Your task to perform on an android device: Open Google Chrome and open the bookmarks view Image 0: 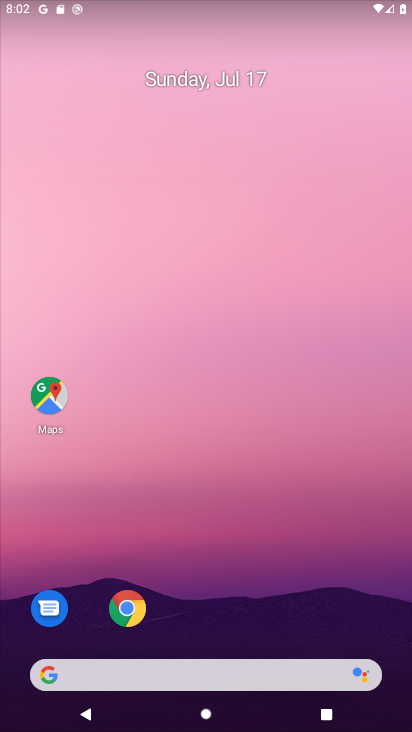
Step 0: click (138, 606)
Your task to perform on an android device: Open Google Chrome and open the bookmarks view Image 1: 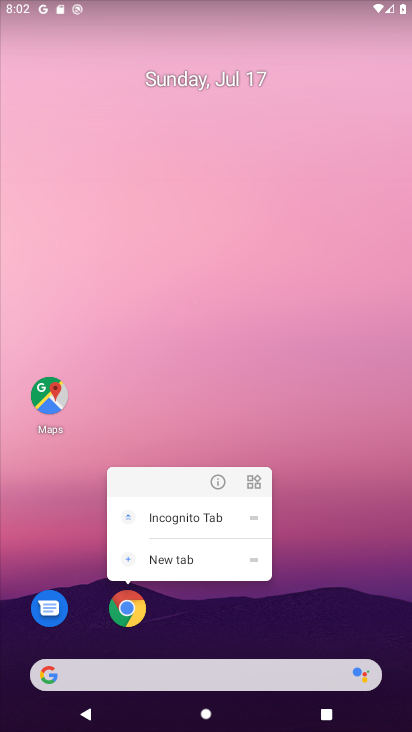
Step 1: click (138, 606)
Your task to perform on an android device: Open Google Chrome and open the bookmarks view Image 2: 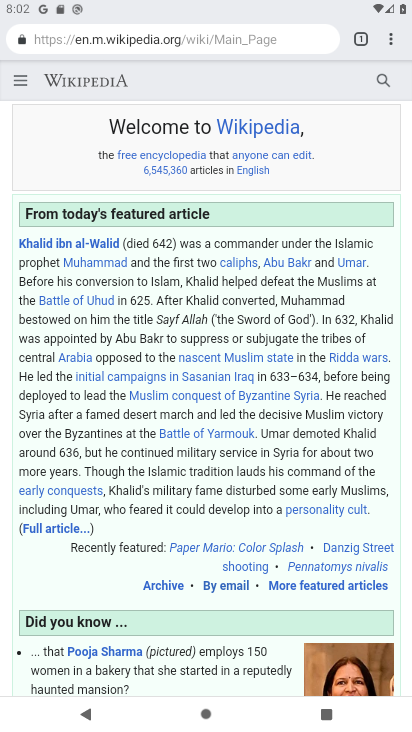
Step 2: click (392, 38)
Your task to perform on an android device: Open Google Chrome and open the bookmarks view Image 3: 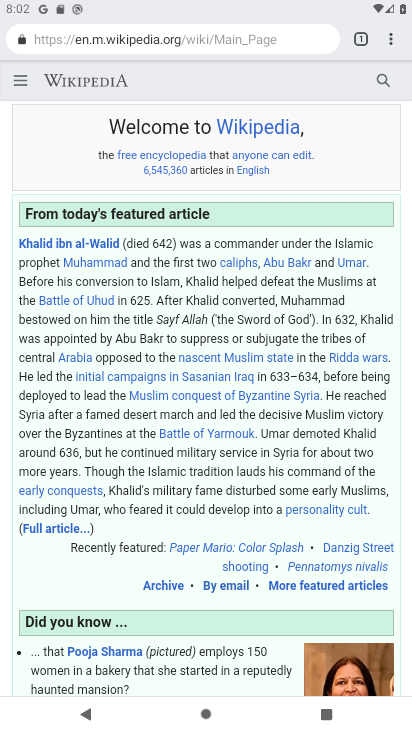
Step 3: click (388, 36)
Your task to perform on an android device: Open Google Chrome and open the bookmarks view Image 4: 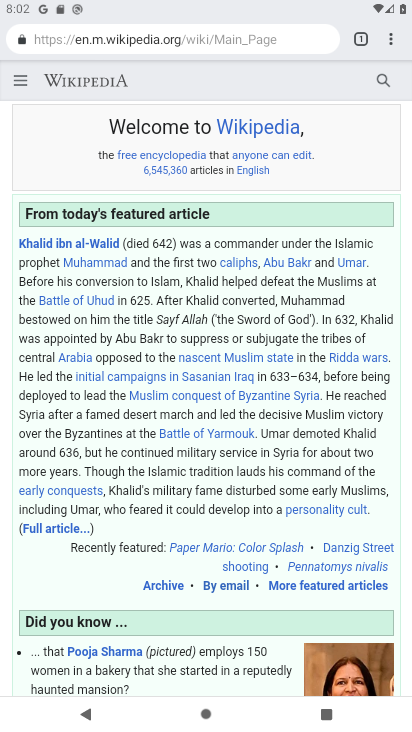
Step 4: click (387, 35)
Your task to perform on an android device: Open Google Chrome and open the bookmarks view Image 5: 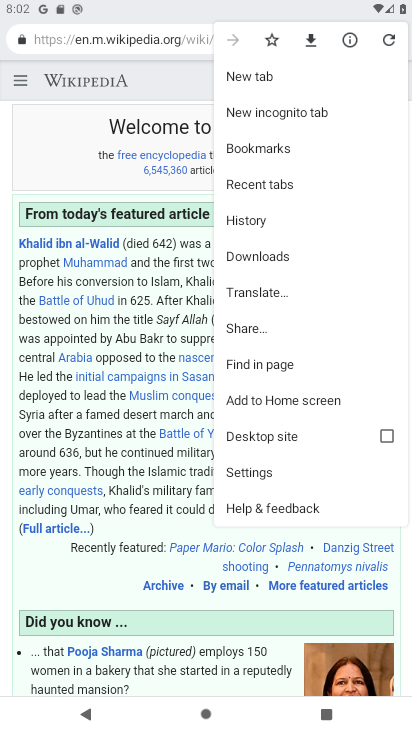
Step 5: click (263, 150)
Your task to perform on an android device: Open Google Chrome and open the bookmarks view Image 6: 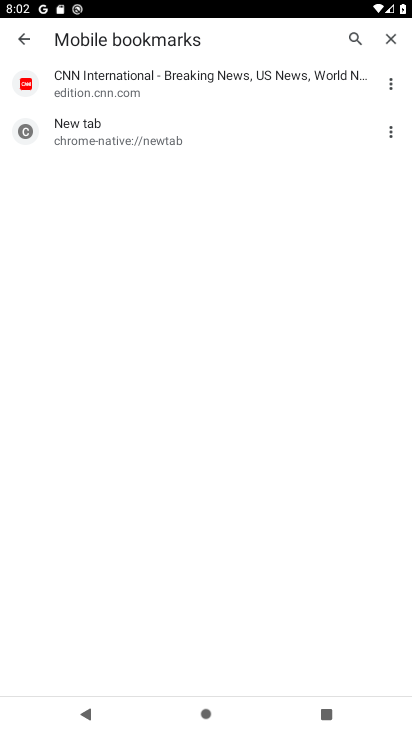
Step 6: task complete